Your task to perform on an android device: Set the phone to "Do not disturb". Image 0: 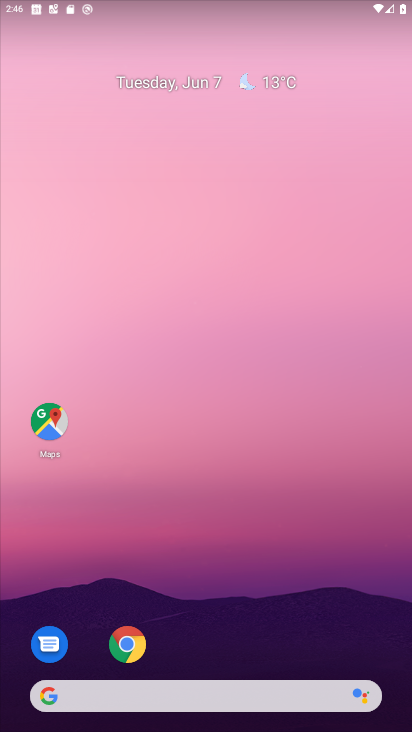
Step 0: drag from (166, 8) to (147, 566)
Your task to perform on an android device: Set the phone to "Do not disturb". Image 1: 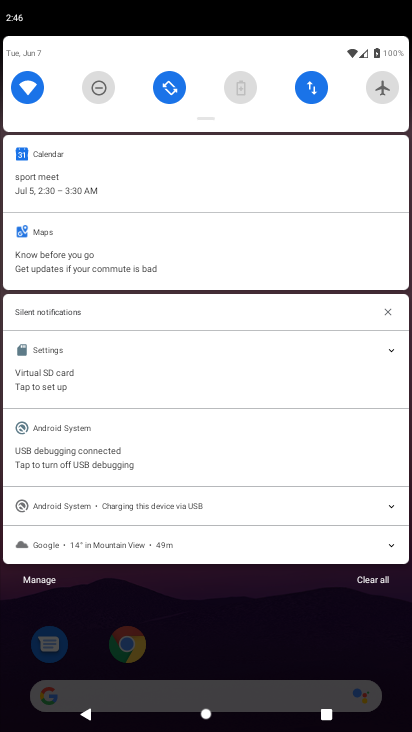
Step 1: click (99, 82)
Your task to perform on an android device: Set the phone to "Do not disturb". Image 2: 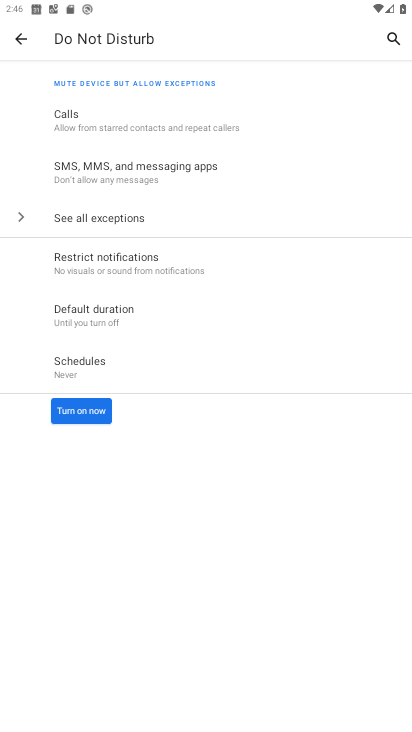
Step 2: click (77, 409)
Your task to perform on an android device: Set the phone to "Do not disturb". Image 3: 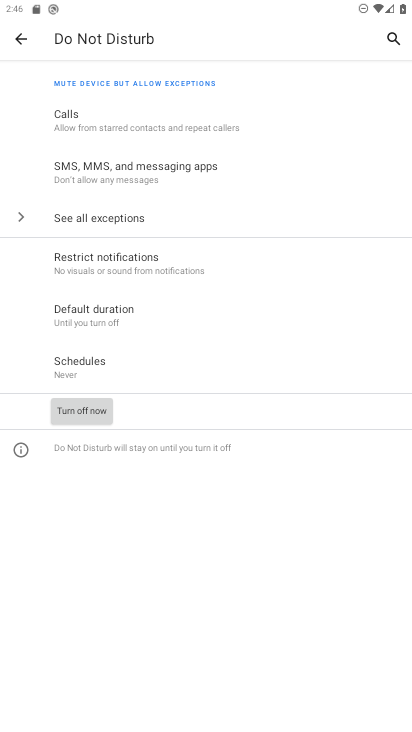
Step 3: task complete